Your task to perform on an android device: search for starred emails in the gmail app Image 0: 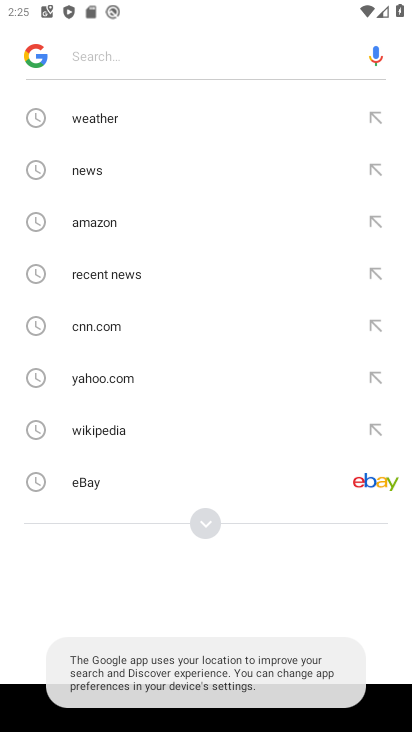
Step 0: press back button
Your task to perform on an android device: search for starred emails in the gmail app Image 1: 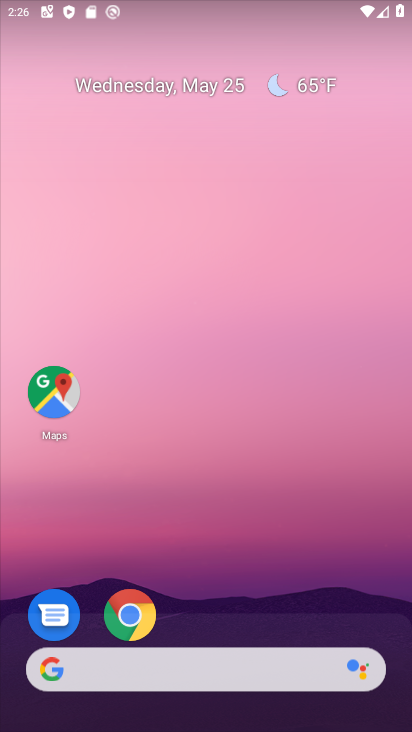
Step 1: drag from (402, 690) to (392, 214)
Your task to perform on an android device: search for starred emails in the gmail app Image 2: 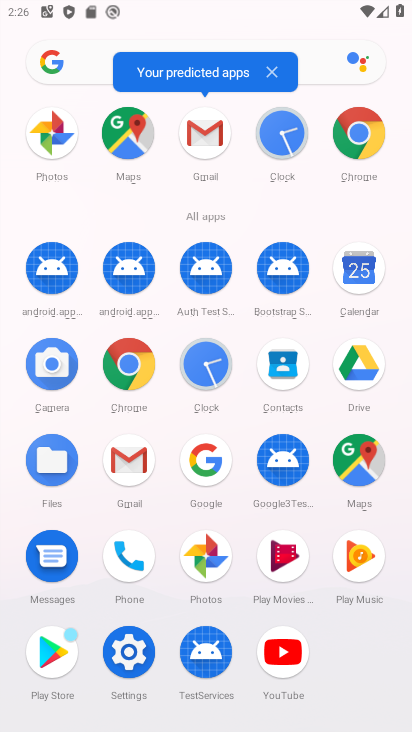
Step 2: click (136, 459)
Your task to perform on an android device: search for starred emails in the gmail app Image 3: 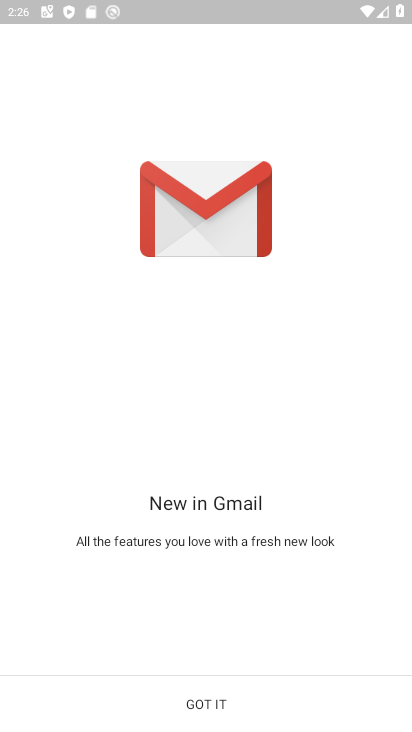
Step 3: click (209, 700)
Your task to perform on an android device: search for starred emails in the gmail app Image 4: 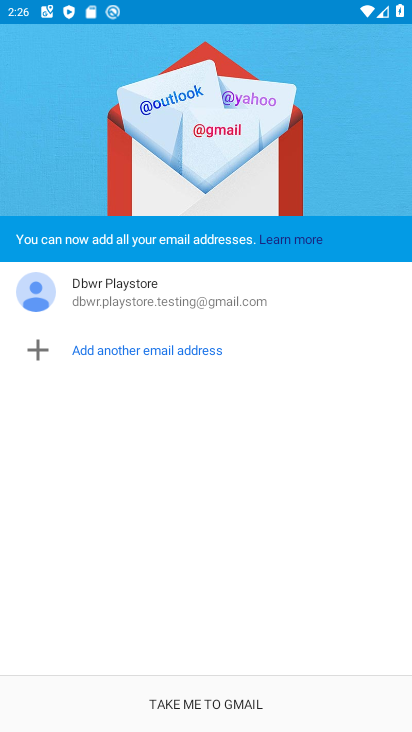
Step 4: click (174, 703)
Your task to perform on an android device: search for starred emails in the gmail app Image 5: 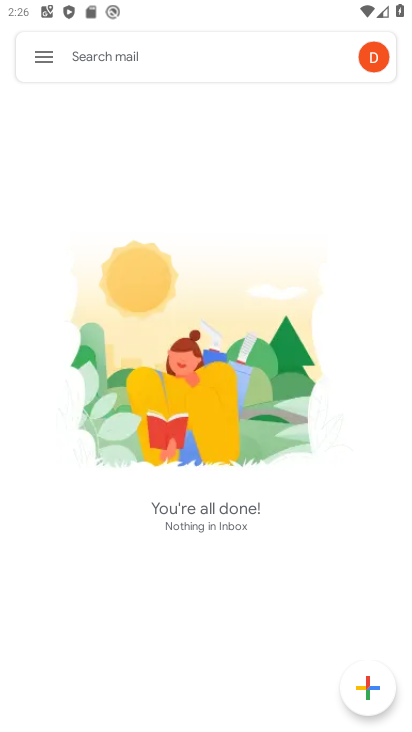
Step 5: click (48, 62)
Your task to perform on an android device: search for starred emails in the gmail app Image 6: 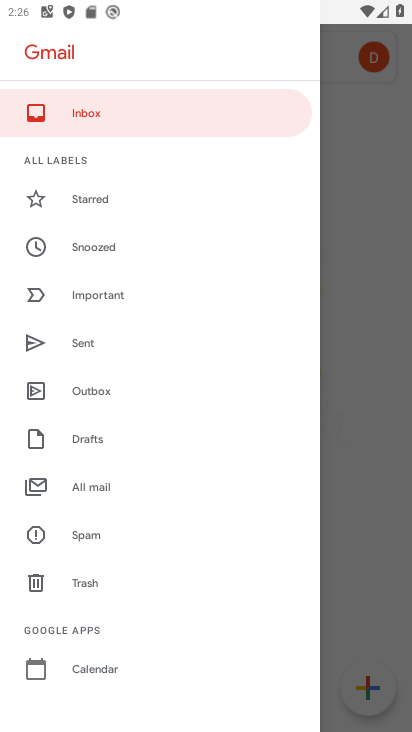
Step 6: click (73, 201)
Your task to perform on an android device: search for starred emails in the gmail app Image 7: 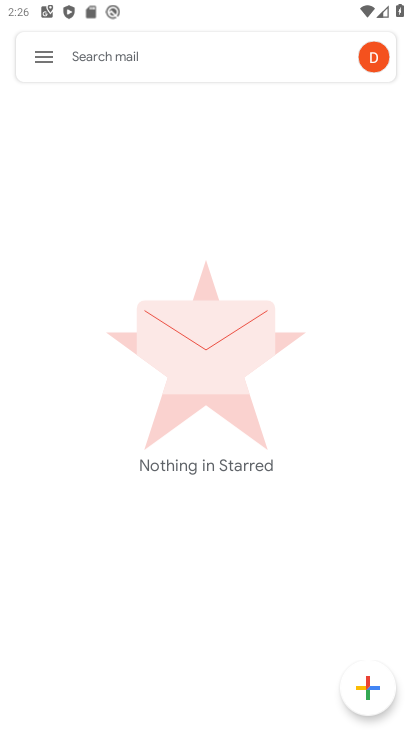
Step 7: task complete